Your task to perform on an android device: What is the news today? Image 0: 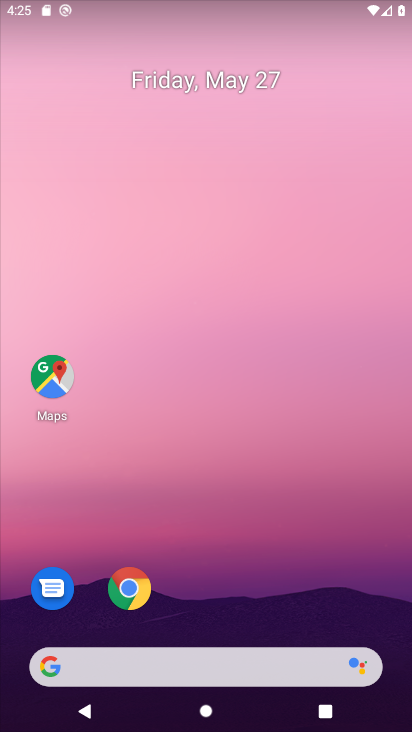
Step 0: click (190, 676)
Your task to perform on an android device: What is the news today? Image 1: 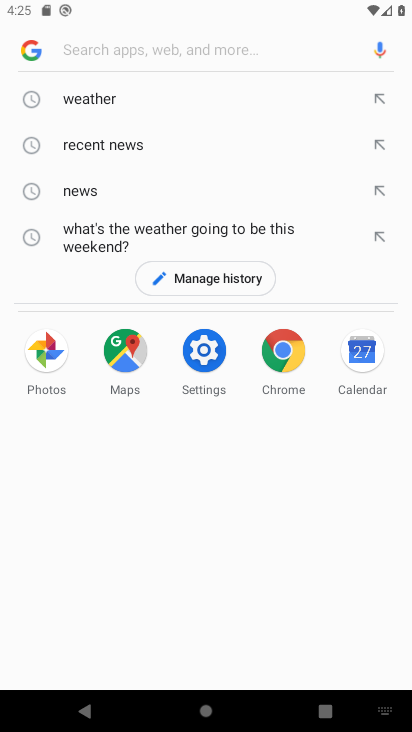
Step 1: click (98, 191)
Your task to perform on an android device: What is the news today? Image 2: 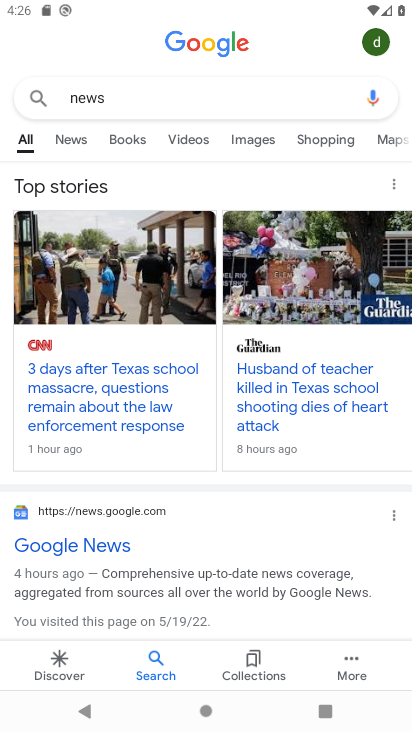
Step 2: task complete